Your task to perform on an android device: turn off priority inbox in the gmail app Image 0: 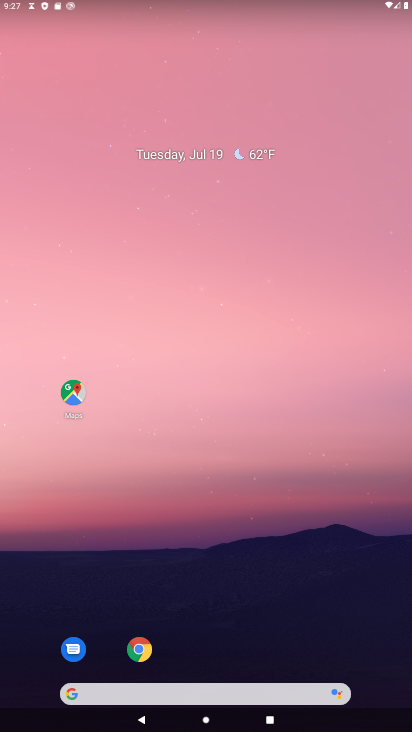
Step 0: drag from (285, 696) to (259, 9)
Your task to perform on an android device: turn off priority inbox in the gmail app Image 1: 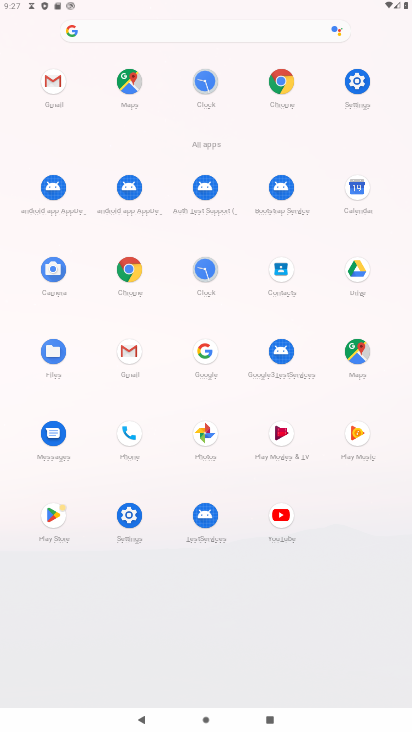
Step 1: click (116, 347)
Your task to perform on an android device: turn off priority inbox in the gmail app Image 2: 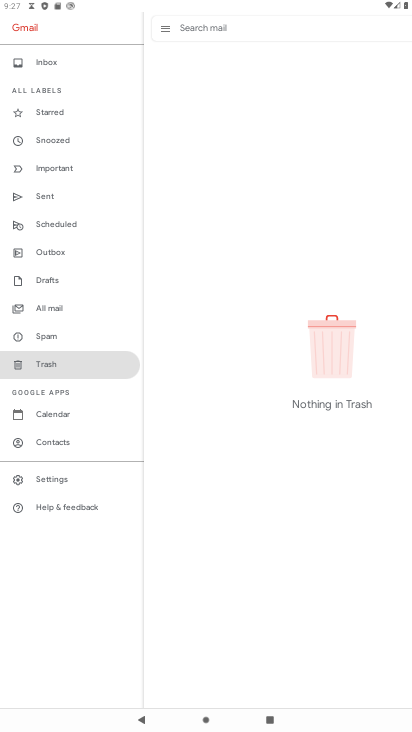
Step 2: click (74, 483)
Your task to perform on an android device: turn off priority inbox in the gmail app Image 3: 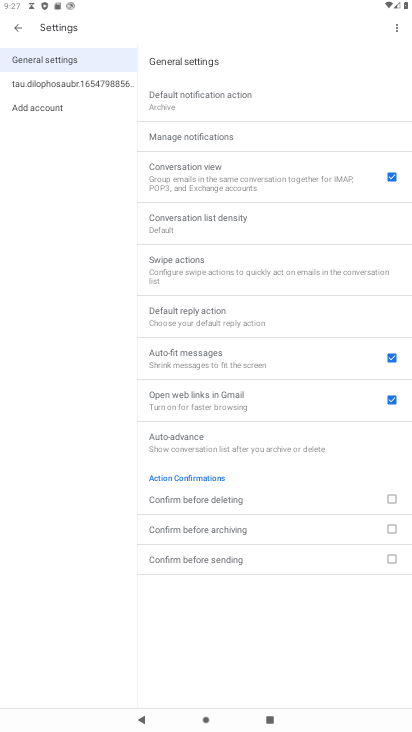
Step 3: click (139, 83)
Your task to perform on an android device: turn off priority inbox in the gmail app Image 4: 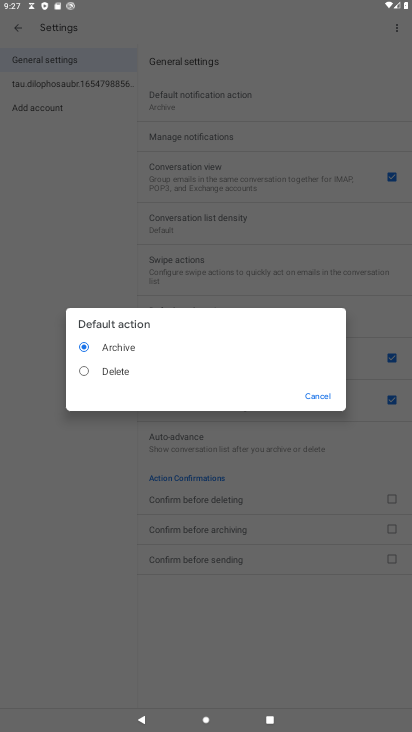
Step 4: click (106, 228)
Your task to perform on an android device: turn off priority inbox in the gmail app Image 5: 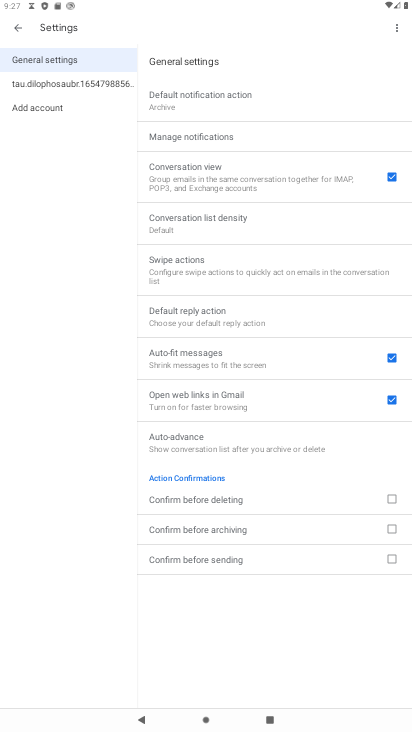
Step 5: click (90, 78)
Your task to perform on an android device: turn off priority inbox in the gmail app Image 6: 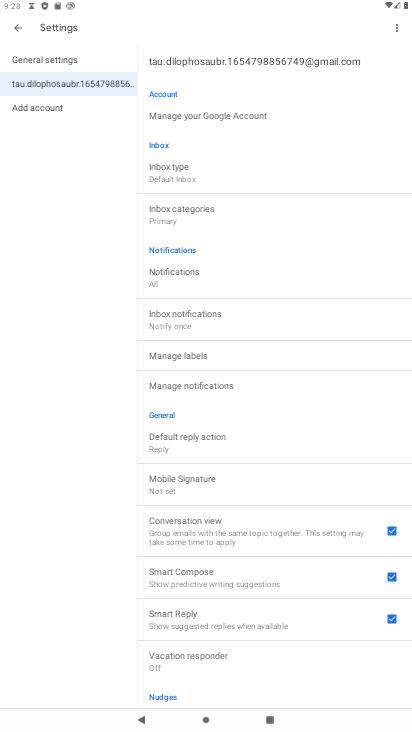
Step 6: click (172, 176)
Your task to perform on an android device: turn off priority inbox in the gmail app Image 7: 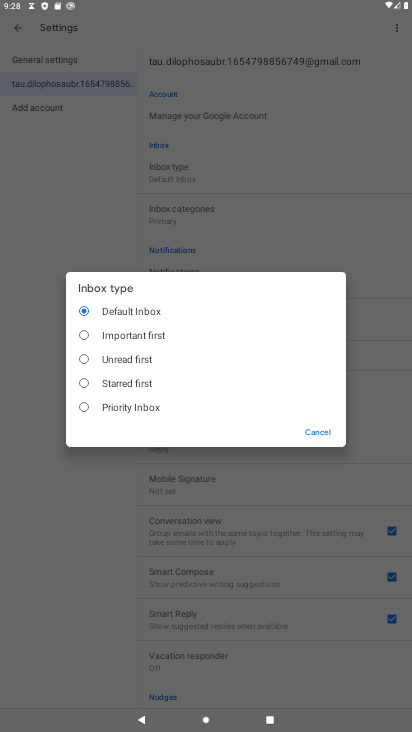
Step 7: task complete